Your task to perform on an android device: Open Maps and search for coffee Image 0: 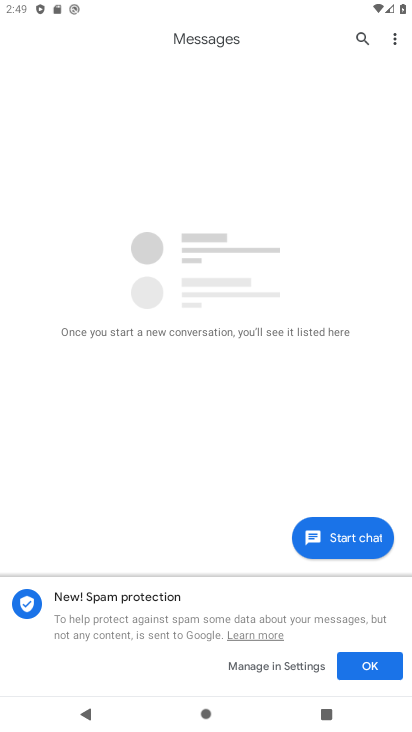
Step 0: press home button
Your task to perform on an android device: Open Maps and search for coffee Image 1: 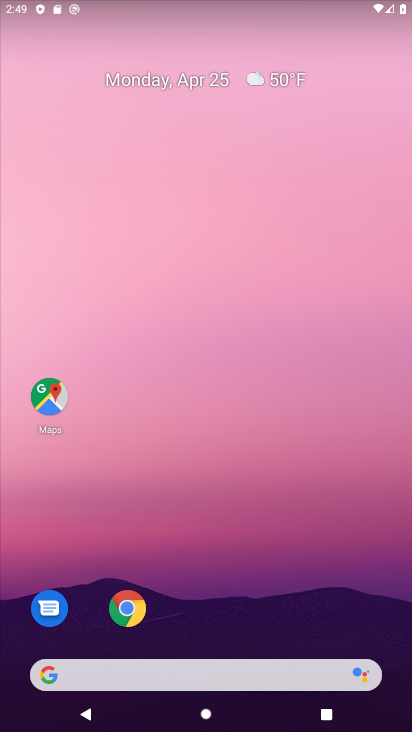
Step 1: click (221, 635)
Your task to perform on an android device: Open Maps and search for coffee Image 2: 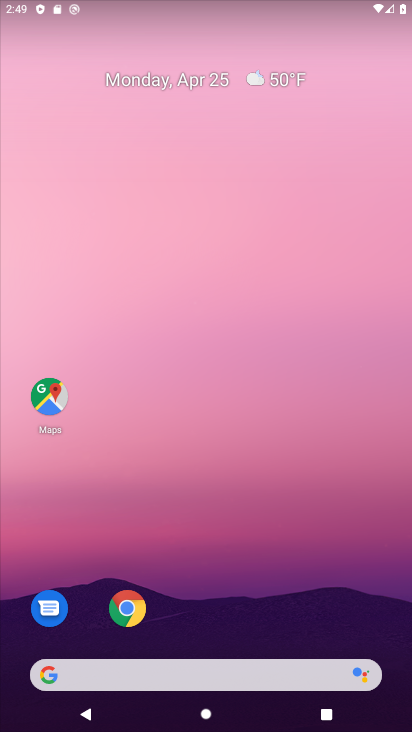
Step 2: click (59, 391)
Your task to perform on an android device: Open Maps and search for coffee Image 3: 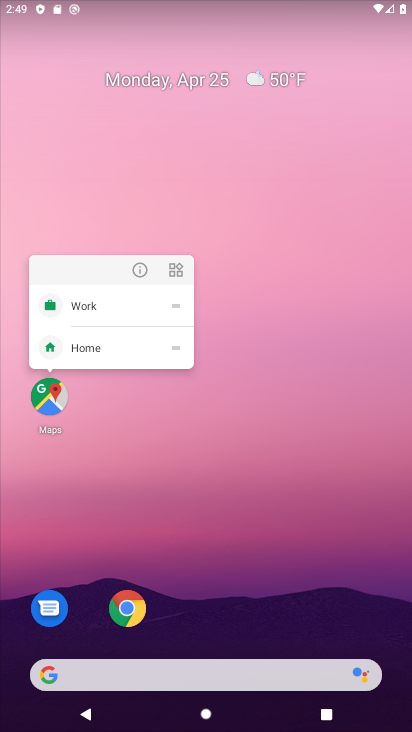
Step 3: click (59, 391)
Your task to perform on an android device: Open Maps and search for coffee Image 4: 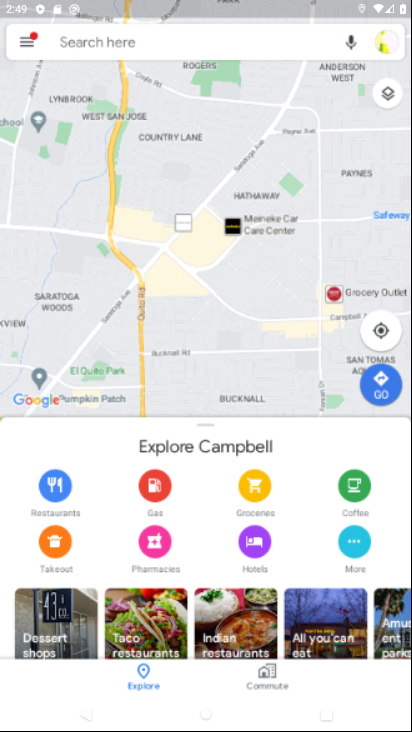
Step 4: click (127, 45)
Your task to perform on an android device: Open Maps and search for coffee Image 5: 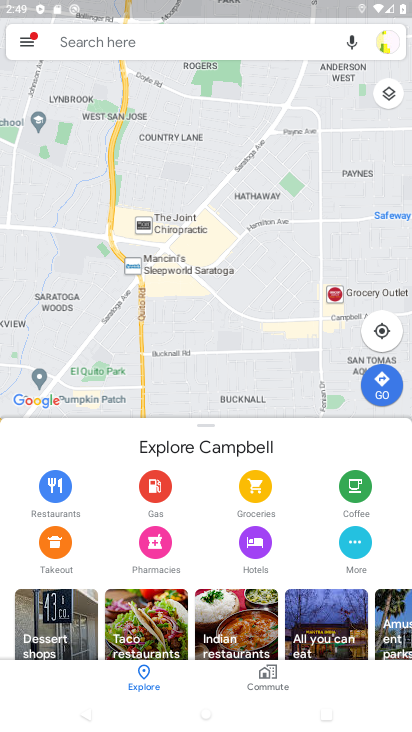
Step 5: type "coffee"
Your task to perform on an android device: Open Maps and search for coffee Image 6: 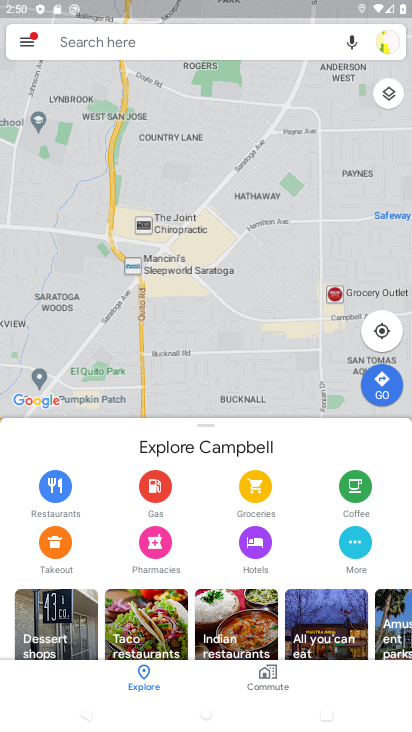
Step 6: click (150, 45)
Your task to perform on an android device: Open Maps and search for coffee Image 7: 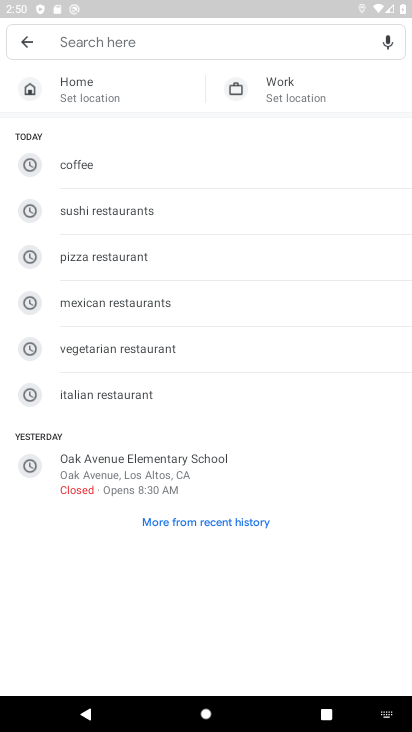
Step 7: type "coffee"
Your task to perform on an android device: Open Maps and search for coffee Image 8: 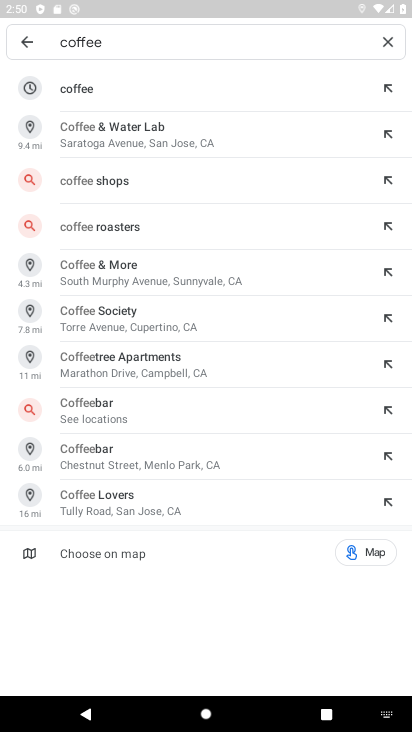
Step 8: click (91, 97)
Your task to perform on an android device: Open Maps and search for coffee Image 9: 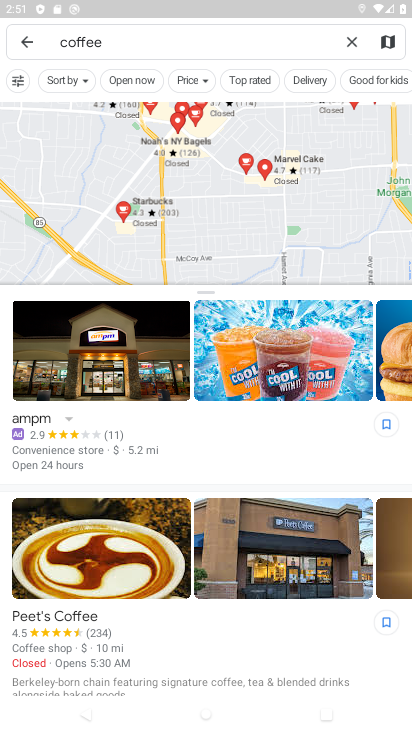
Step 9: task complete